Your task to perform on an android device: Go to eBay Image 0: 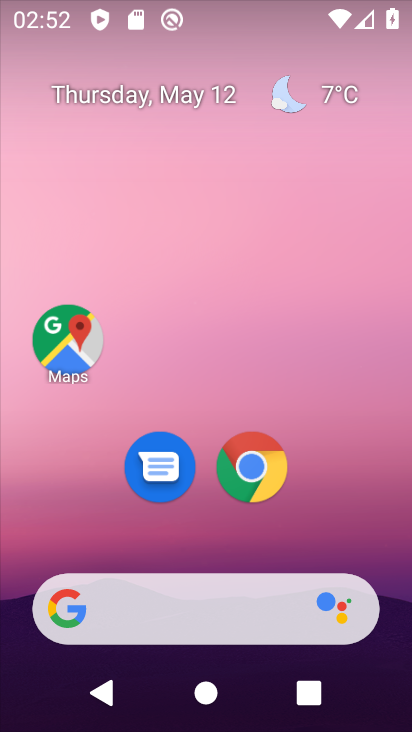
Step 0: click (267, 473)
Your task to perform on an android device: Go to eBay Image 1: 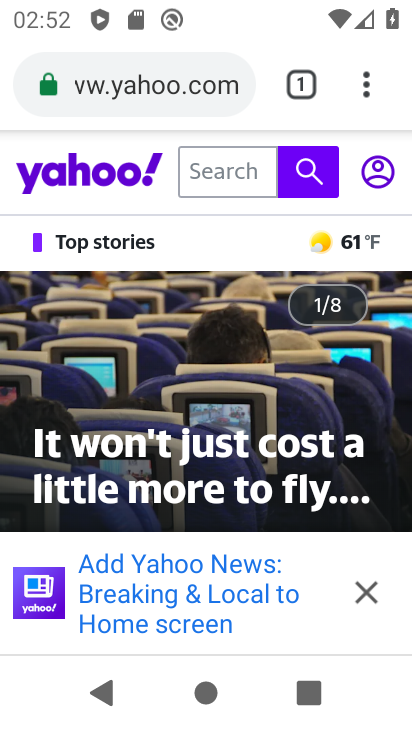
Step 1: click (153, 89)
Your task to perform on an android device: Go to eBay Image 2: 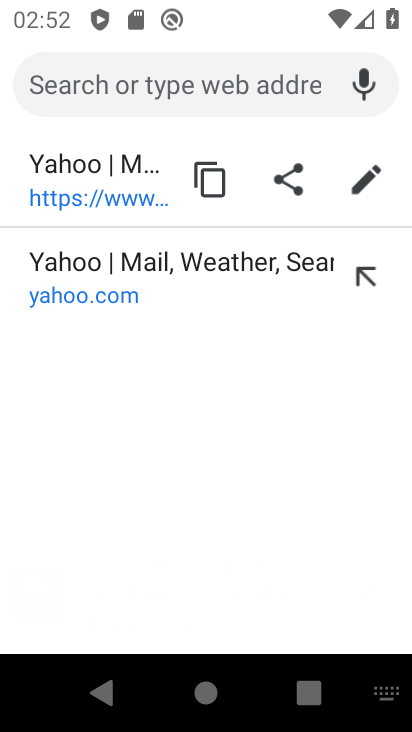
Step 2: type "ebay.com"
Your task to perform on an android device: Go to eBay Image 3: 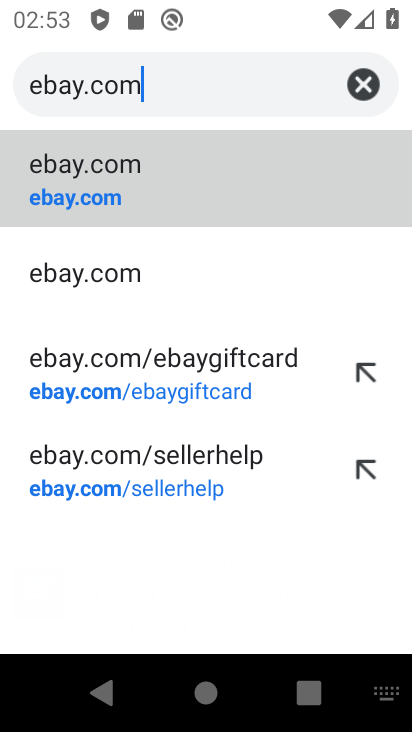
Step 3: click (207, 153)
Your task to perform on an android device: Go to eBay Image 4: 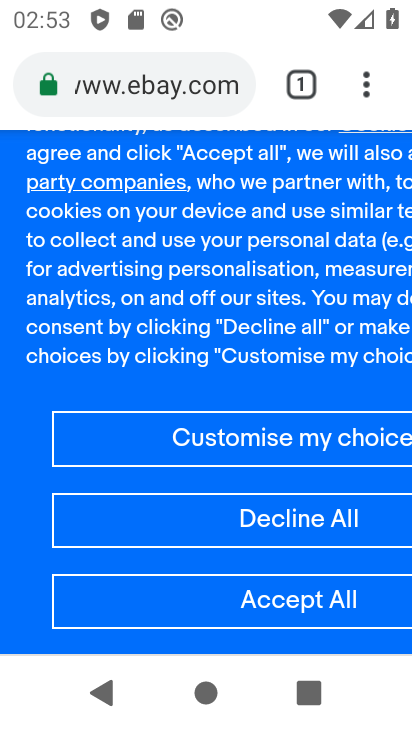
Step 4: task complete